Your task to perform on an android device: Do I have any events tomorrow? Image 0: 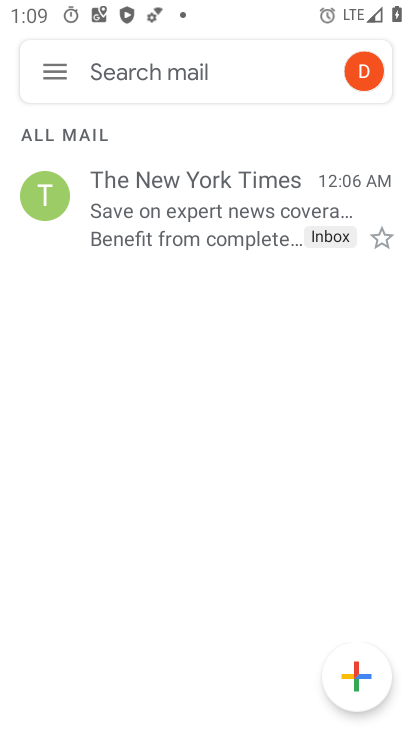
Step 0: press home button
Your task to perform on an android device: Do I have any events tomorrow? Image 1: 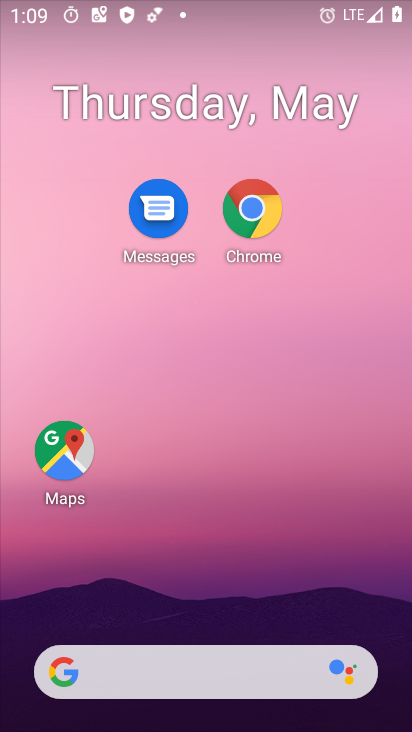
Step 1: drag from (170, 608) to (212, 2)
Your task to perform on an android device: Do I have any events tomorrow? Image 2: 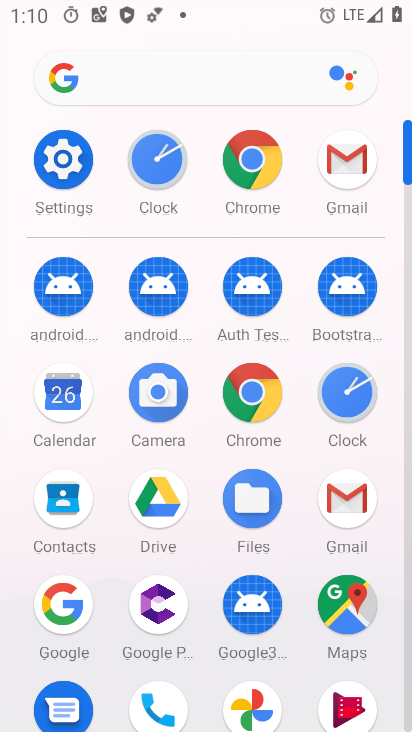
Step 2: click (70, 439)
Your task to perform on an android device: Do I have any events tomorrow? Image 3: 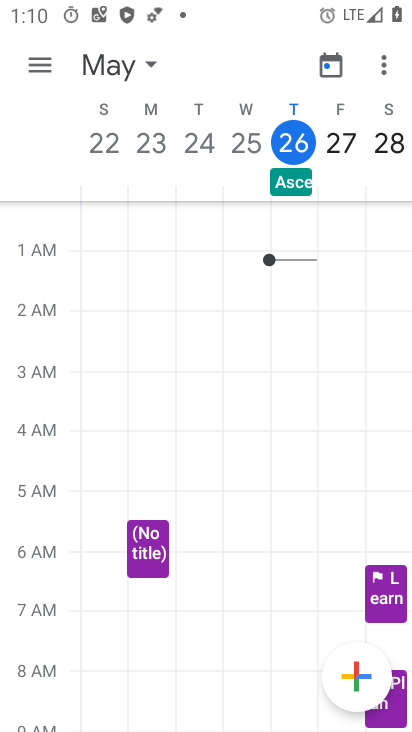
Step 3: click (41, 76)
Your task to perform on an android device: Do I have any events tomorrow? Image 4: 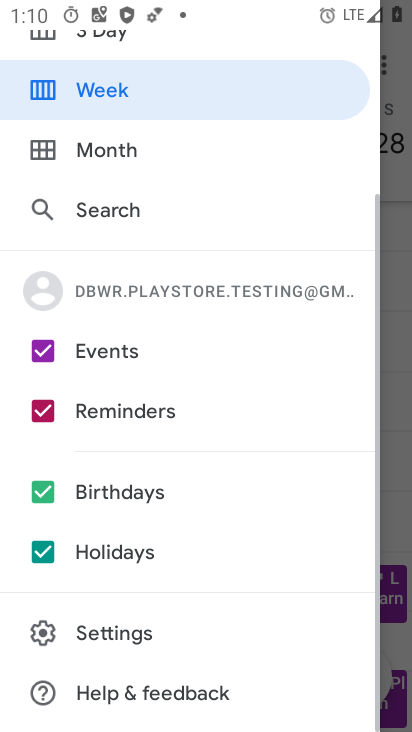
Step 4: drag from (128, 125) to (118, 562)
Your task to perform on an android device: Do I have any events tomorrow? Image 5: 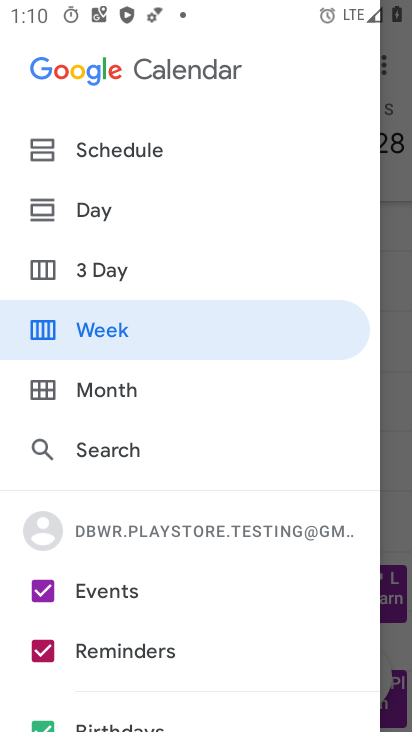
Step 5: click (129, 165)
Your task to perform on an android device: Do I have any events tomorrow? Image 6: 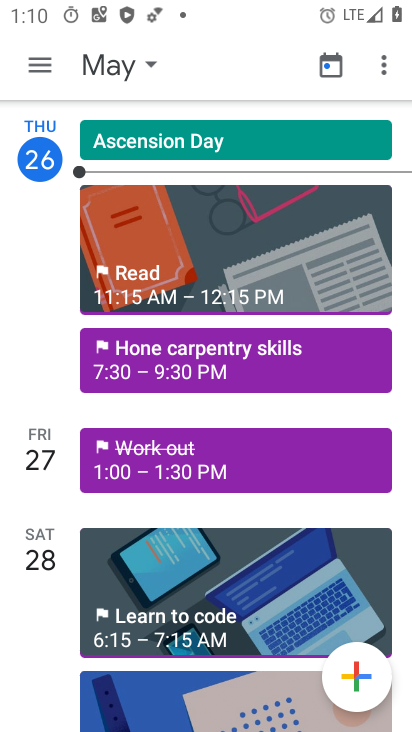
Step 6: task complete